Your task to perform on an android device: find snoozed emails in the gmail app Image 0: 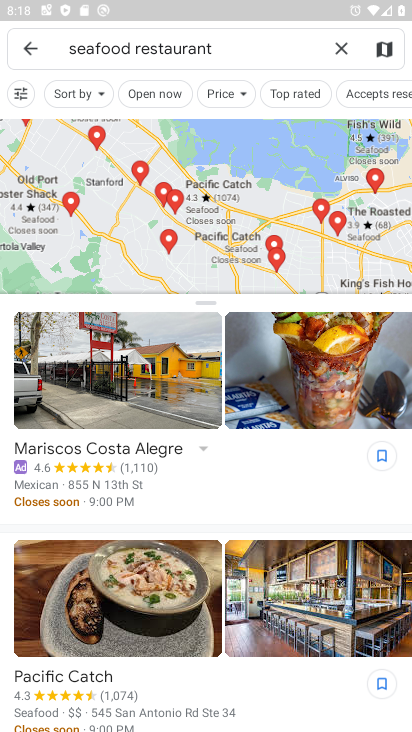
Step 0: press home button
Your task to perform on an android device: find snoozed emails in the gmail app Image 1: 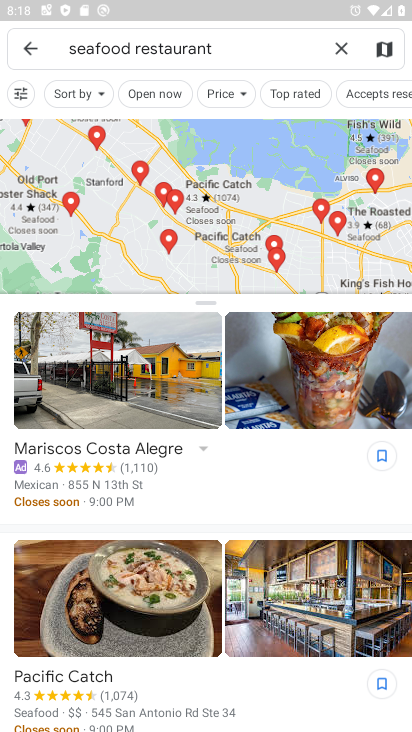
Step 1: press home button
Your task to perform on an android device: find snoozed emails in the gmail app Image 2: 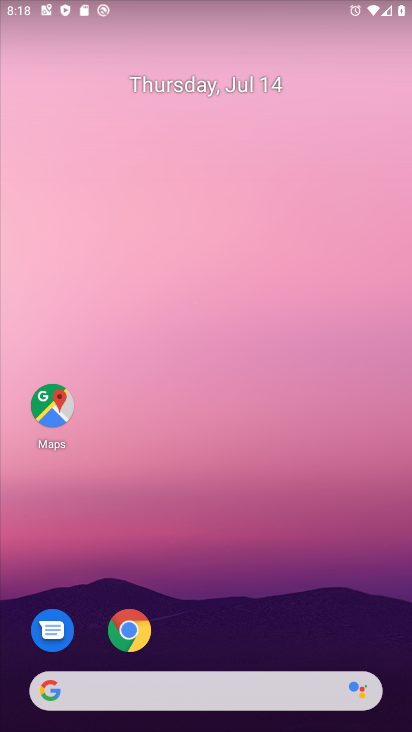
Step 2: drag from (161, 663) to (190, 245)
Your task to perform on an android device: find snoozed emails in the gmail app Image 3: 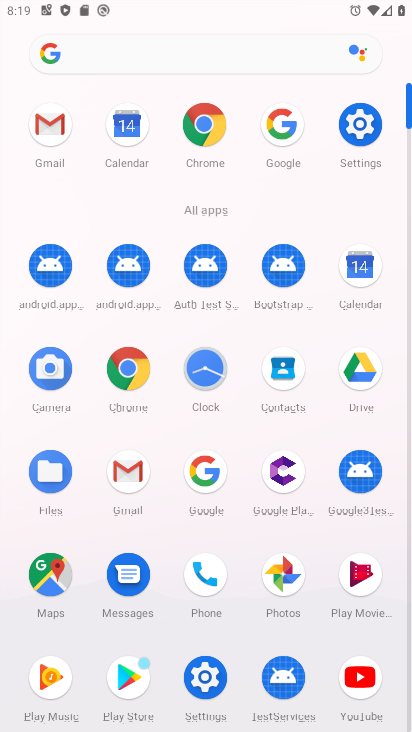
Step 3: click (126, 472)
Your task to perform on an android device: find snoozed emails in the gmail app Image 4: 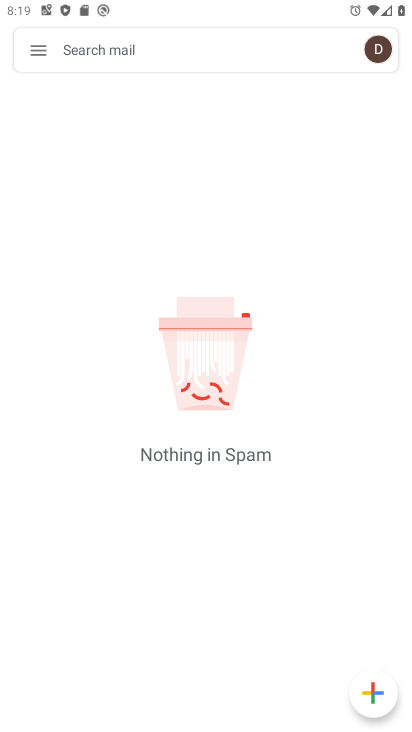
Step 4: click (40, 51)
Your task to perform on an android device: find snoozed emails in the gmail app Image 5: 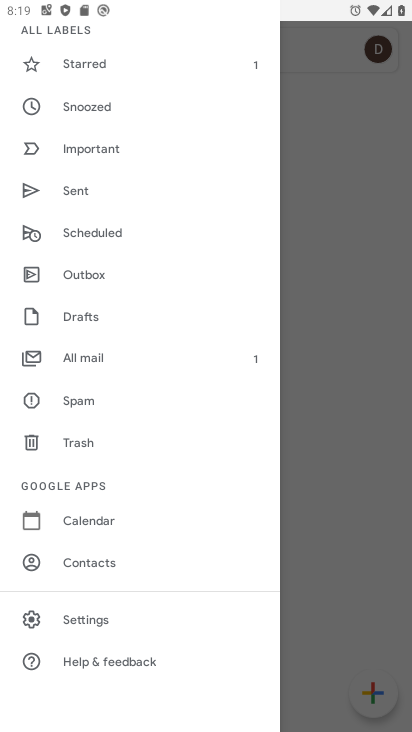
Step 5: click (80, 112)
Your task to perform on an android device: find snoozed emails in the gmail app Image 6: 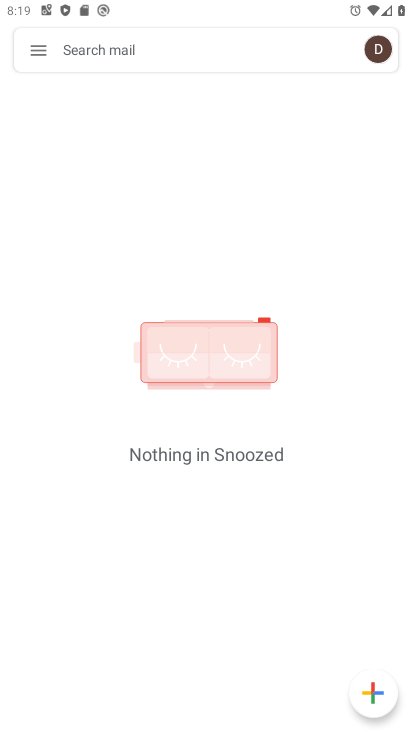
Step 6: task complete